Your task to perform on an android device: Go to internet settings Image 0: 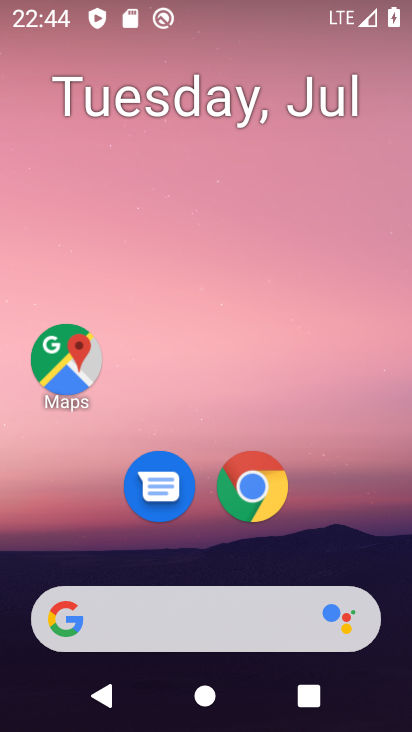
Step 0: press home button
Your task to perform on an android device: Go to internet settings Image 1: 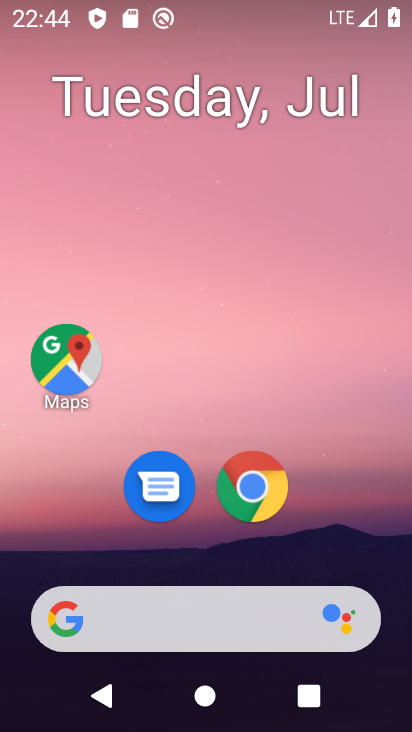
Step 1: drag from (365, 507) to (354, 198)
Your task to perform on an android device: Go to internet settings Image 2: 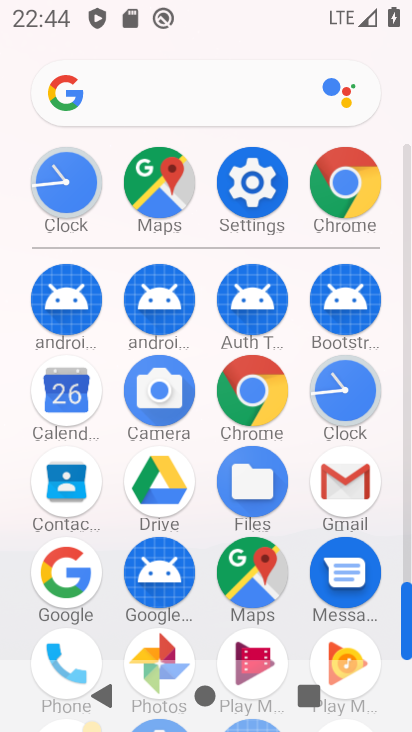
Step 2: click (250, 190)
Your task to perform on an android device: Go to internet settings Image 3: 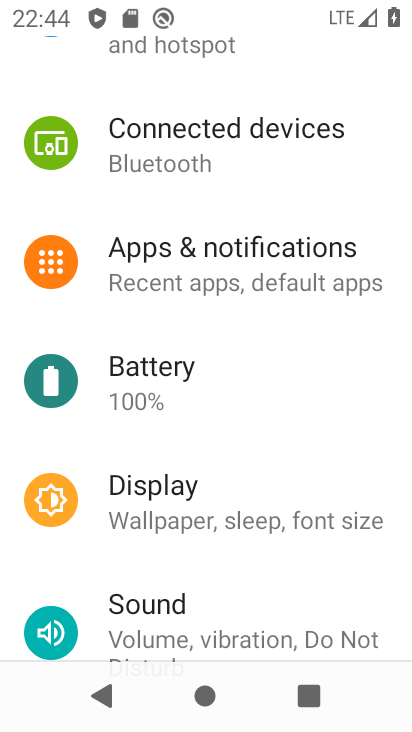
Step 3: drag from (337, 452) to (332, 370)
Your task to perform on an android device: Go to internet settings Image 4: 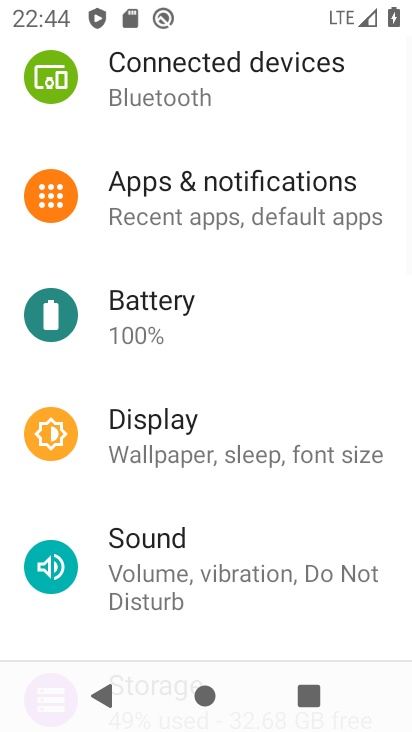
Step 4: drag from (327, 511) to (328, 380)
Your task to perform on an android device: Go to internet settings Image 5: 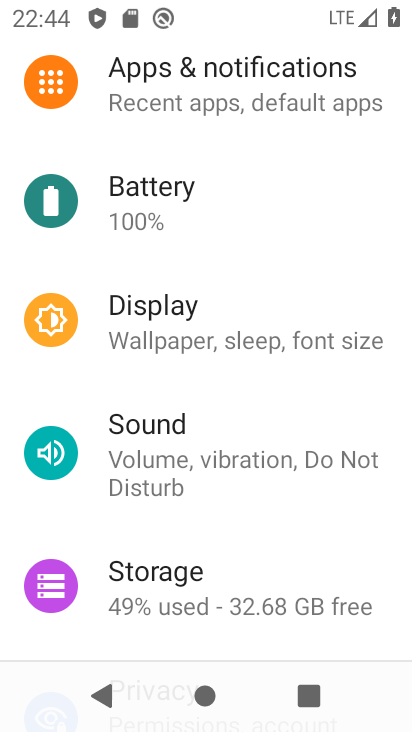
Step 5: drag from (339, 531) to (340, 423)
Your task to perform on an android device: Go to internet settings Image 6: 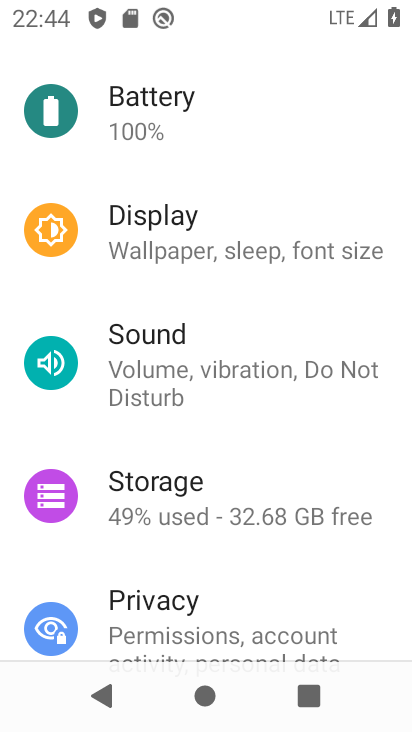
Step 6: drag from (338, 569) to (338, 443)
Your task to perform on an android device: Go to internet settings Image 7: 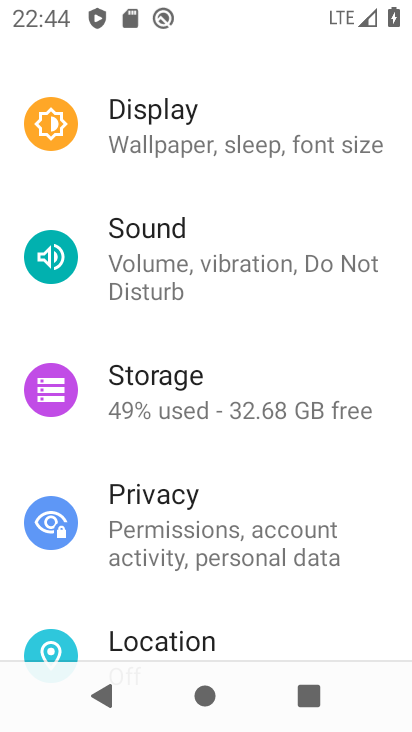
Step 7: drag from (343, 613) to (341, 489)
Your task to perform on an android device: Go to internet settings Image 8: 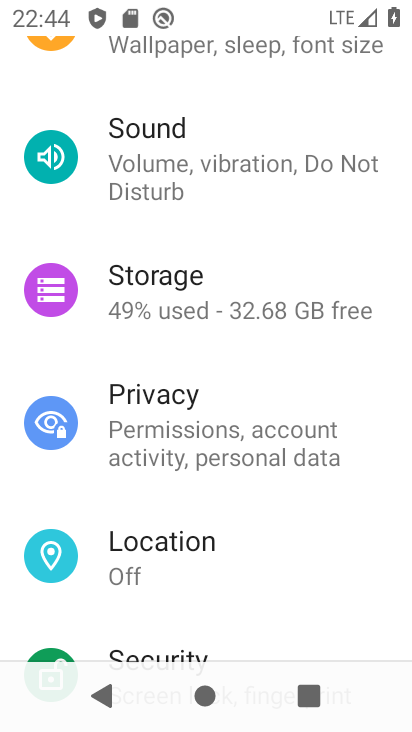
Step 8: drag from (352, 592) to (348, 510)
Your task to perform on an android device: Go to internet settings Image 9: 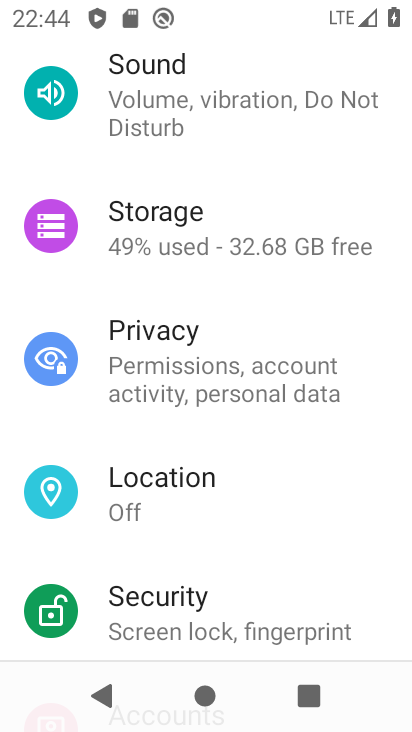
Step 9: drag from (346, 575) to (335, 456)
Your task to perform on an android device: Go to internet settings Image 10: 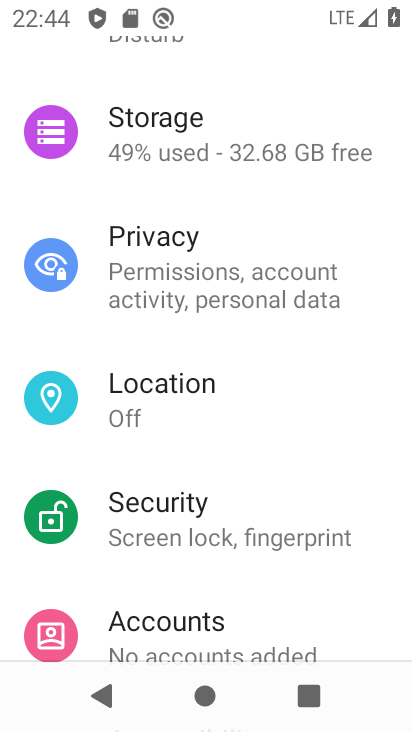
Step 10: drag from (334, 599) to (334, 460)
Your task to perform on an android device: Go to internet settings Image 11: 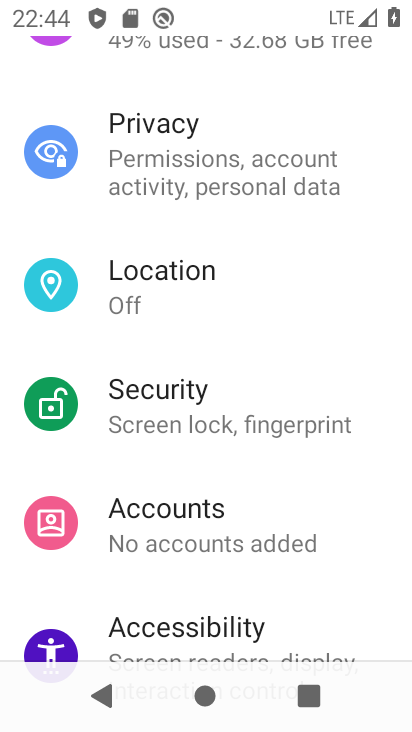
Step 11: drag from (334, 592) to (336, 465)
Your task to perform on an android device: Go to internet settings Image 12: 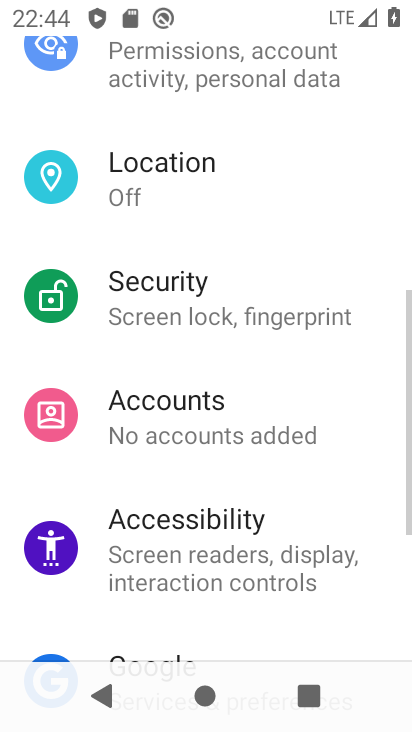
Step 12: drag from (354, 322) to (361, 458)
Your task to perform on an android device: Go to internet settings Image 13: 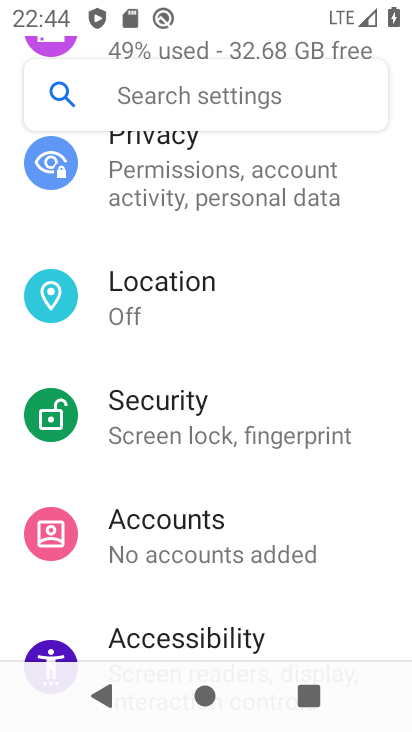
Step 13: drag from (367, 274) to (363, 411)
Your task to perform on an android device: Go to internet settings Image 14: 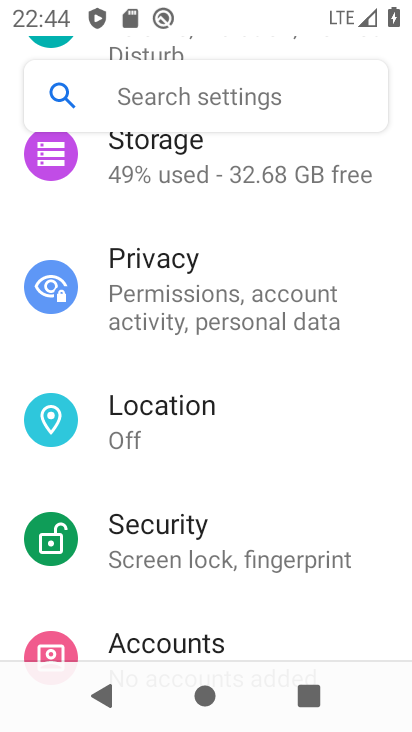
Step 14: drag from (377, 263) to (369, 388)
Your task to perform on an android device: Go to internet settings Image 15: 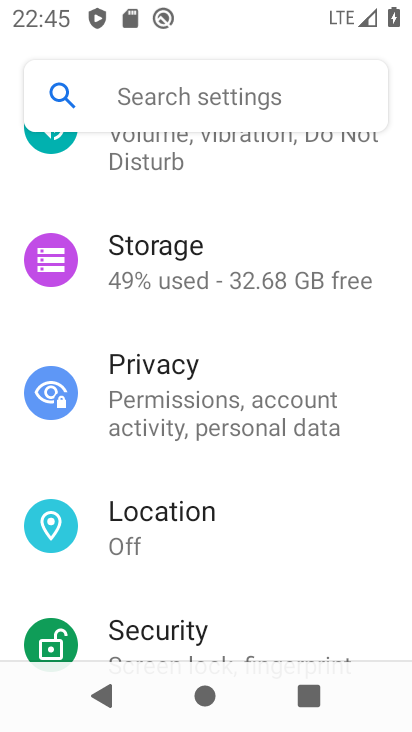
Step 15: drag from (377, 228) to (366, 345)
Your task to perform on an android device: Go to internet settings Image 16: 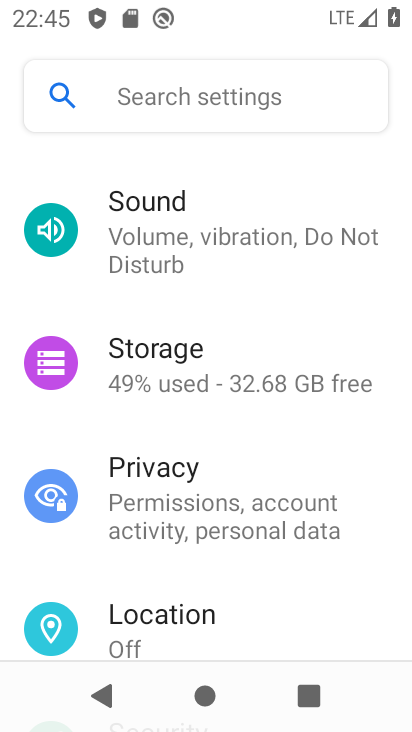
Step 16: drag from (375, 189) to (375, 321)
Your task to perform on an android device: Go to internet settings Image 17: 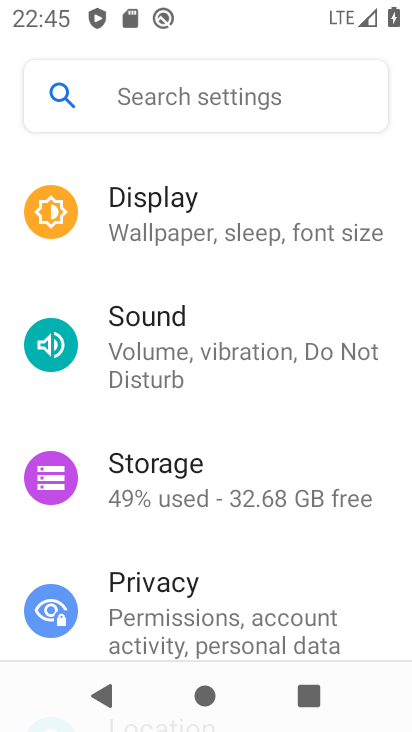
Step 17: drag from (378, 193) to (378, 395)
Your task to perform on an android device: Go to internet settings Image 18: 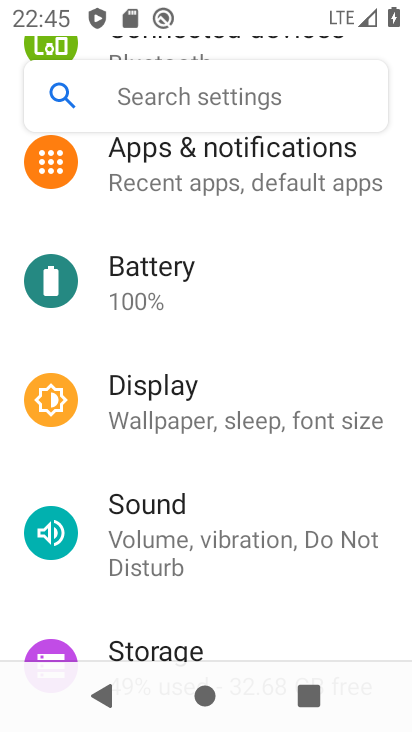
Step 18: drag from (358, 217) to (342, 559)
Your task to perform on an android device: Go to internet settings Image 19: 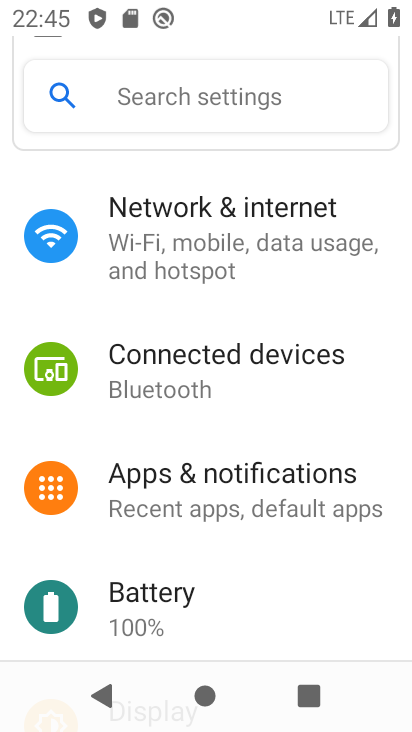
Step 19: click (304, 210)
Your task to perform on an android device: Go to internet settings Image 20: 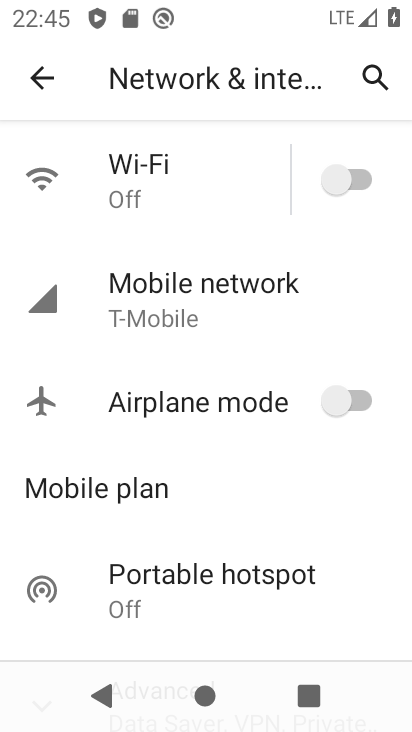
Step 20: task complete